Your task to perform on an android device: toggle translation in the chrome app Image 0: 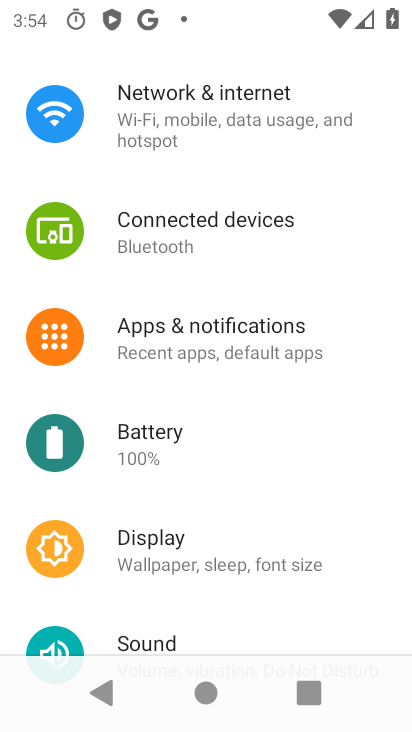
Step 0: press home button
Your task to perform on an android device: toggle translation in the chrome app Image 1: 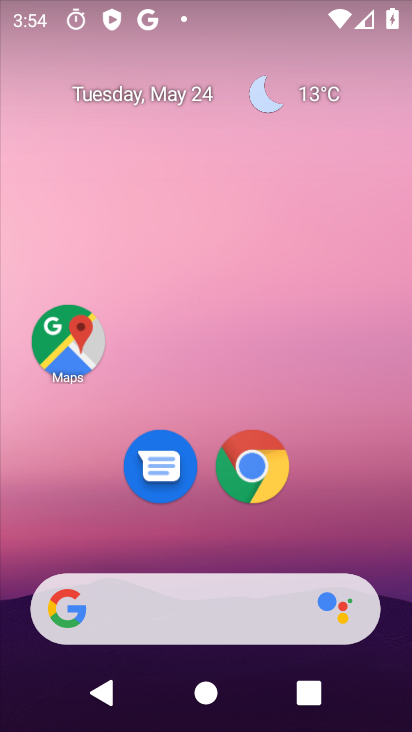
Step 1: click (255, 459)
Your task to perform on an android device: toggle translation in the chrome app Image 2: 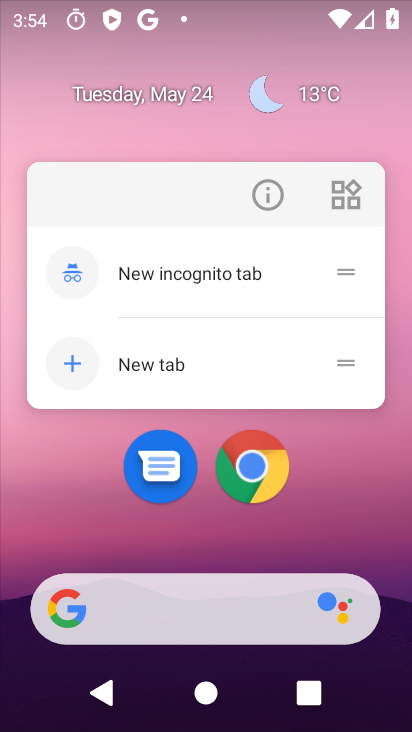
Step 2: click (254, 460)
Your task to perform on an android device: toggle translation in the chrome app Image 3: 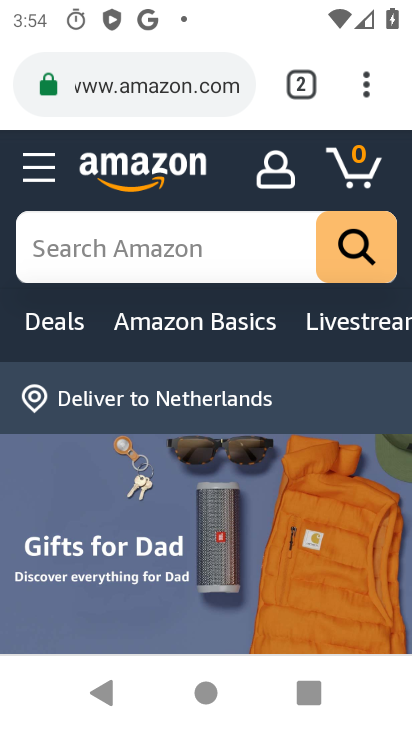
Step 3: click (372, 78)
Your task to perform on an android device: toggle translation in the chrome app Image 4: 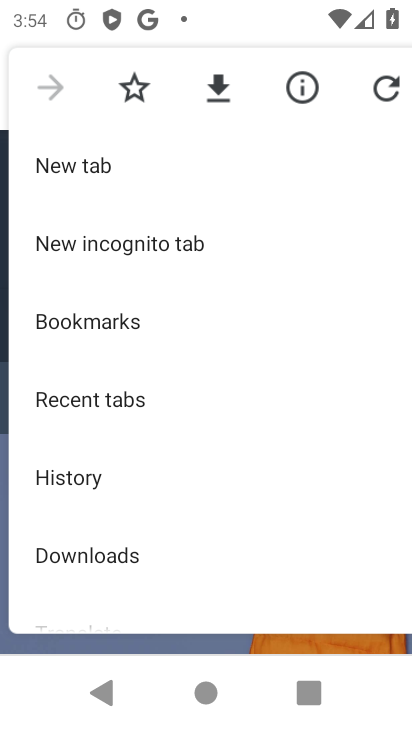
Step 4: drag from (195, 585) to (231, 194)
Your task to perform on an android device: toggle translation in the chrome app Image 5: 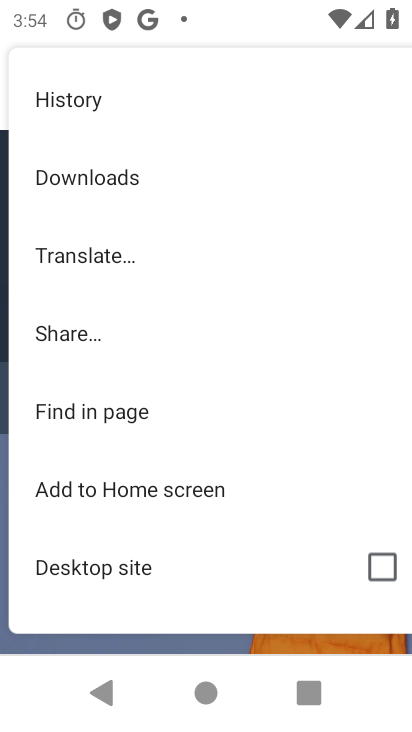
Step 5: drag from (186, 486) to (208, 190)
Your task to perform on an android device: toggle translation in the chrome app Image 6: 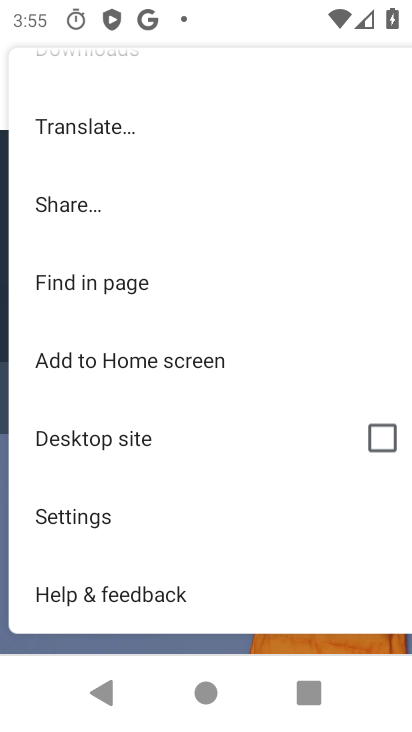
Step 6: click (77, 511)
Your task to perform on an android device: toggle translation in the chrome app Image 7: 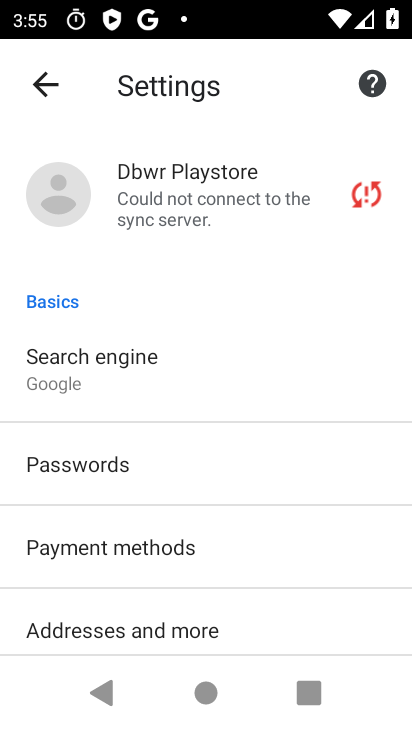
Step 7: drag from (225, 426) to (280, 92)
Your task to perform on an android device: toggle translation in the chrome app Image 8: 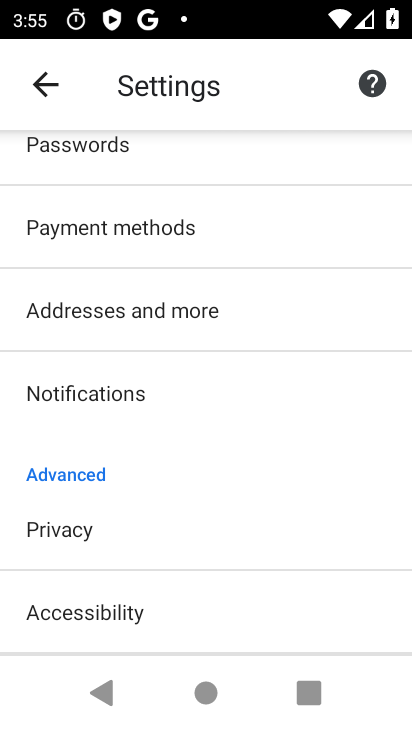
Step 8: drag from (210, 213) to (227, 158)
Your task to perform on an android device: toggle translation in the chrome app Image 9: 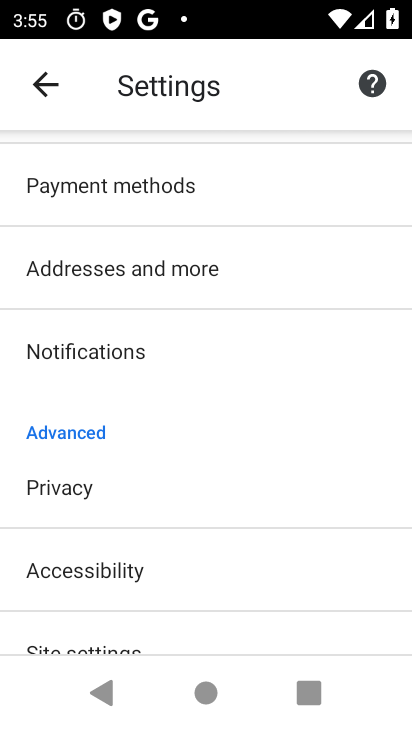
Step 9: drag from (178, 569) to (201, 263)
Your task to perform on an android device: toggle translation in the chrome app Image 10: 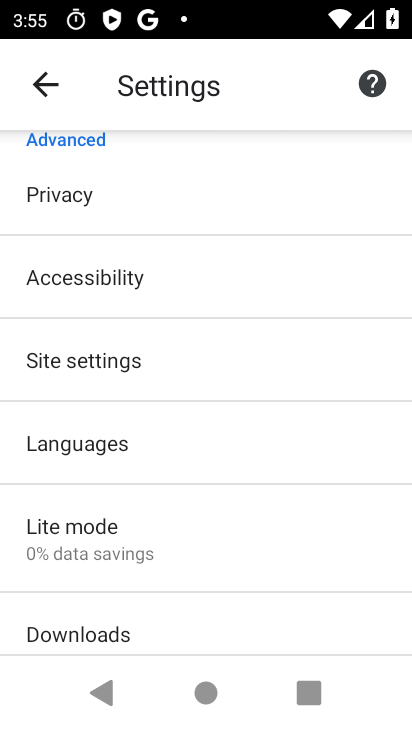
Step 10: click (108, 447)
Your task to perform on an android device: toggle translation in the chrome app Image 11: 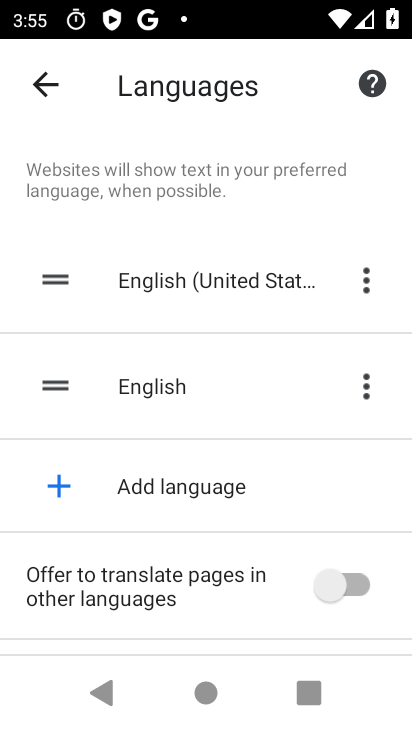
Step 11: click (342, 583)
Your task to perform on an android device: toggle translation in the chrome app Image 12: 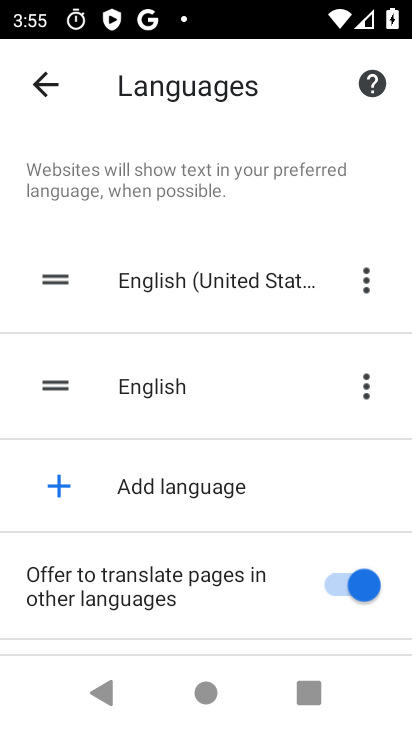
Step 12: task complete